Your task to perform on an android device: Show me popular games on the Play Store Image 0: 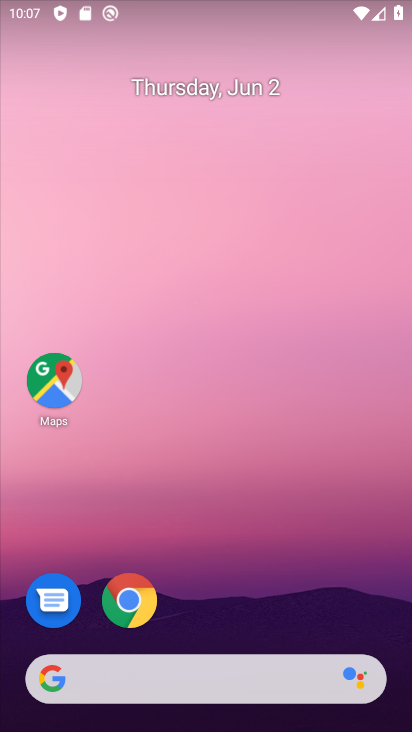
Step 0: drag from (218, 615) to (215, 133)
Your task to perform on an android device: Show me popular games on the Play Store Image 1: 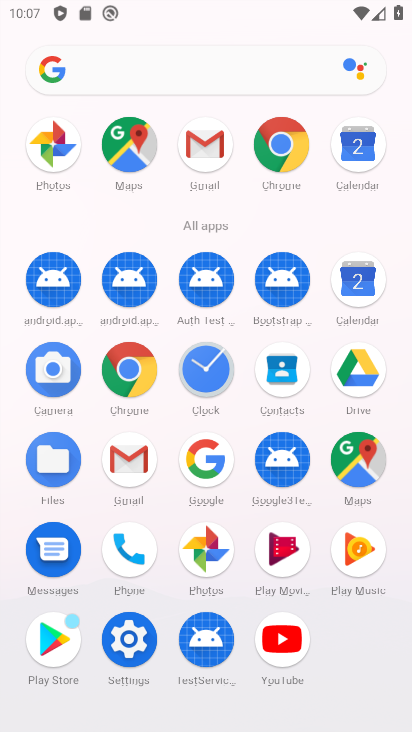
Step 1: click (60, 638)
Your task to perform on an android device: Show me popular games on the Play Store Image 2: 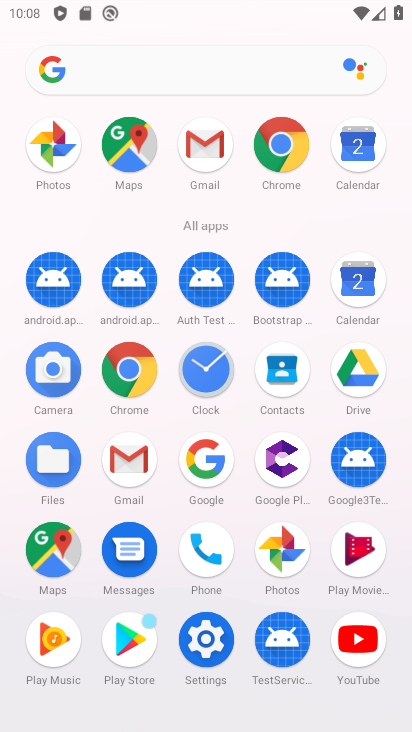
Step 2: click (144, 635)
Your task to perform on an android device: Show me popular games on the Play Store Image 3: 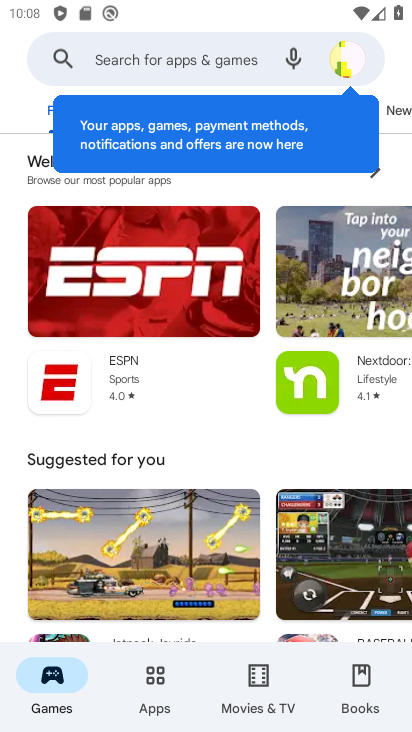
Step 3: drag from (239, 473) to (202, 122)
Your task to perform on an android device: Show me popular games on the Play Store Image 4: 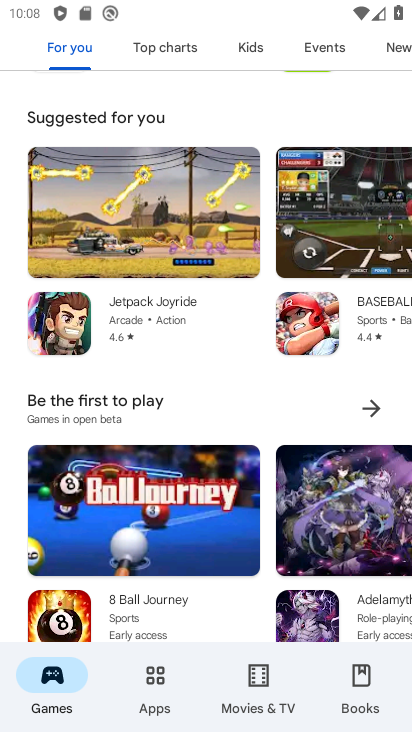
Step 4: drag from (226, 561) to (191, 179)
Your task to perform on an android device: Show me popular games on the Play Store Image 5: 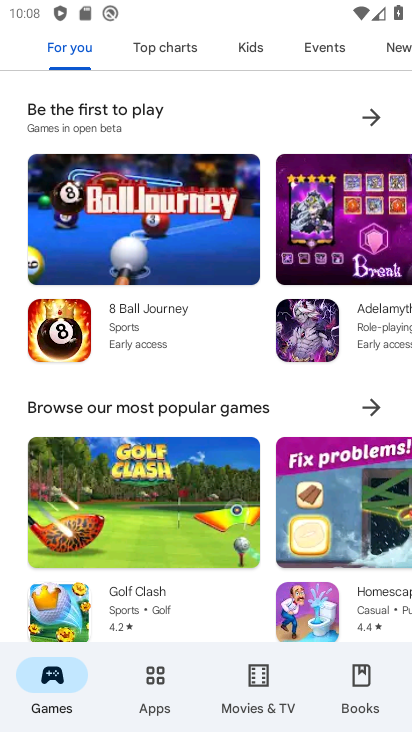
Step 5: click (344, 408)
Your task to perform on an android device: Show me popular games on the Play Store Image 6: 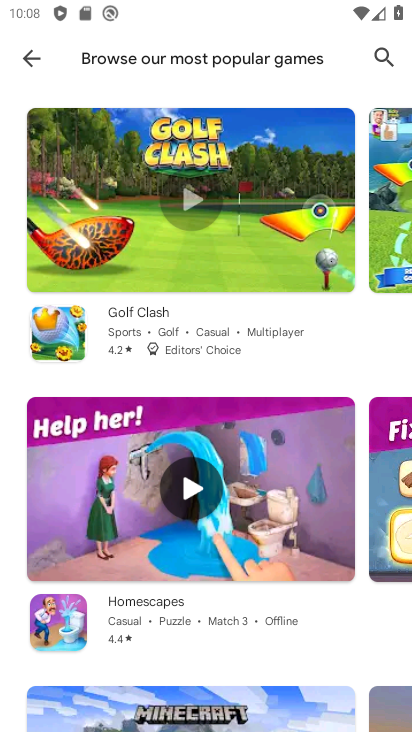
Step 6: task complete